Your task to perform on an android device: What's on my calendar tomorrow? Image 0: 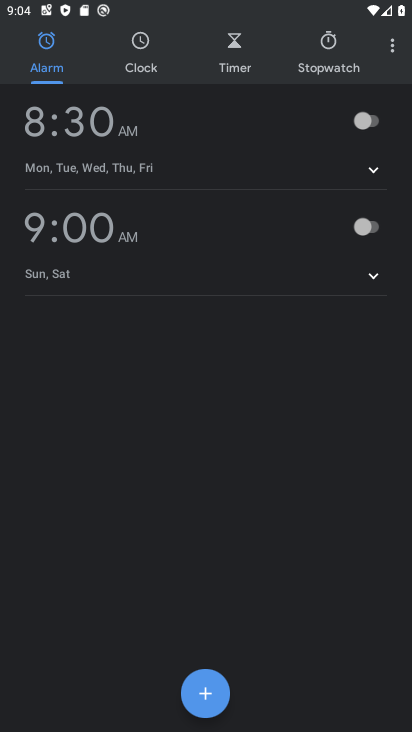
Step 0: press home button
Your task to perform on an android device: What's on my calendar tomorrow? Image 1: 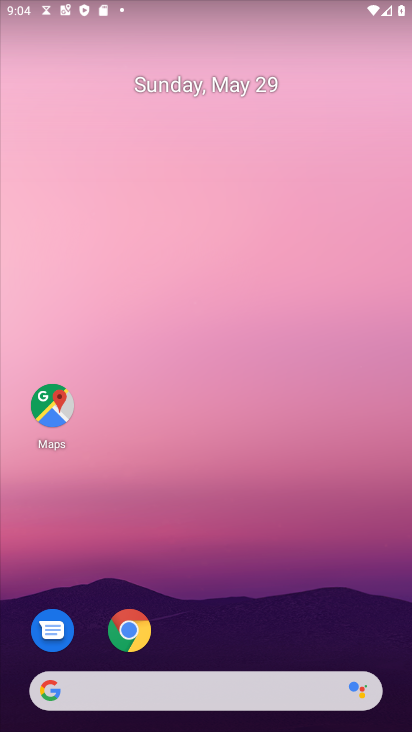
Step 1: click (213, 85)
Your task to perform on an android device: What's on my calendar tomorrow? Image 2: 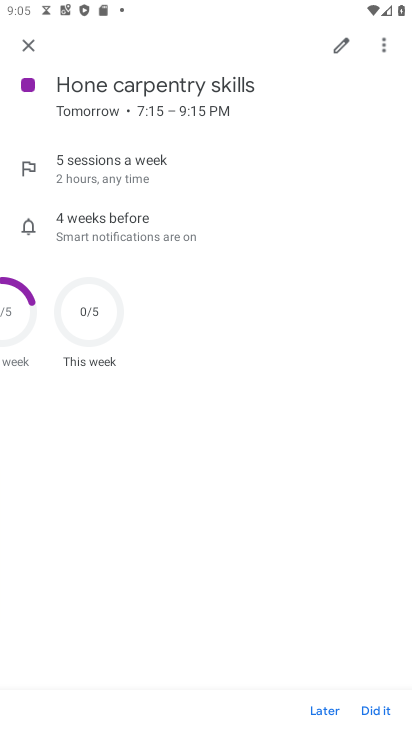
Step 2: click (38, 40)
Your task to perform on an android device: What's on my calendar tomorrow? Image 3: 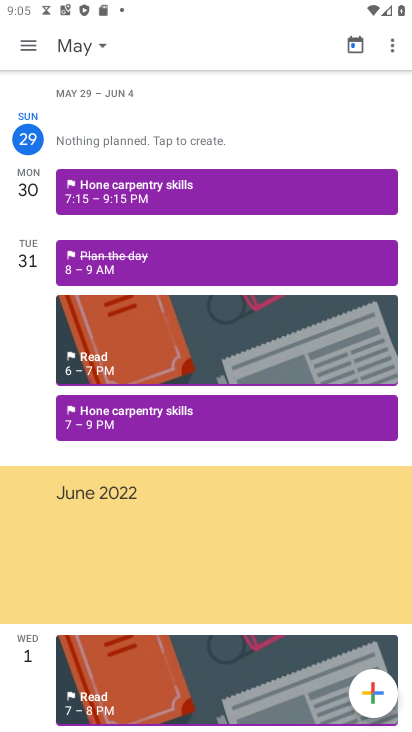
Step 3: click (134, 270)
Your task to perform on an android device: What's on my calendar tomorrow? Image 4: 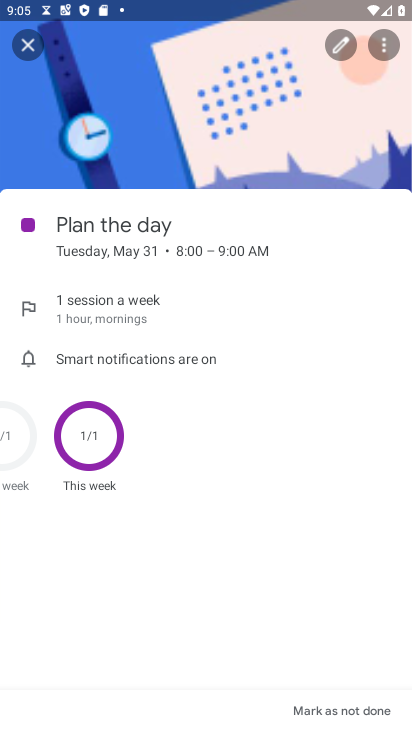
Step 4: click (30, 56)
Your task to perform on an android device: What's on my calendar tomorrow? Image 5: 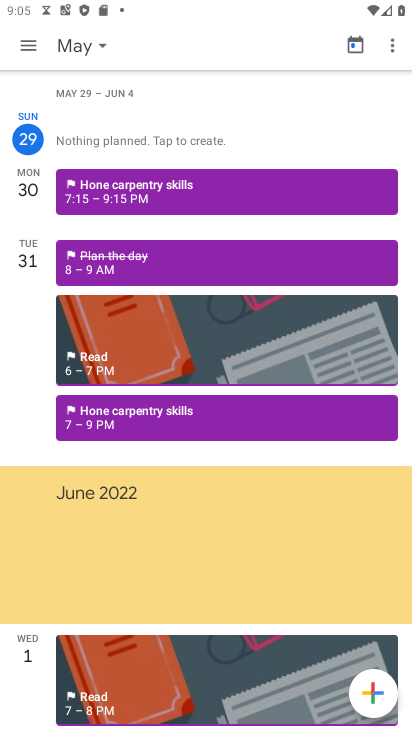
Step 5: task complete